Your task to perform on an android device: What's on Reddit today Image 0: 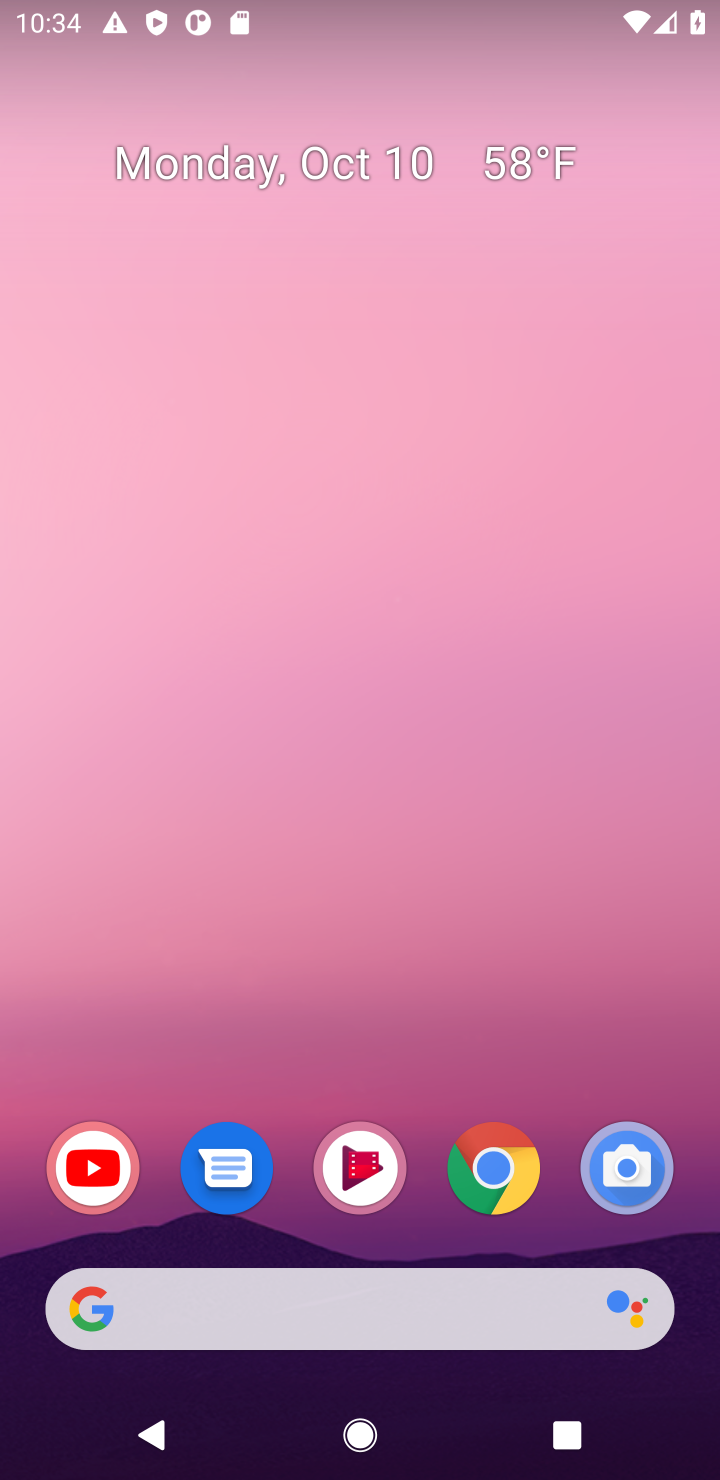
Step 0: click (325, 1314)
Your task to perform on an android device: What's on Reddit today Image 1: 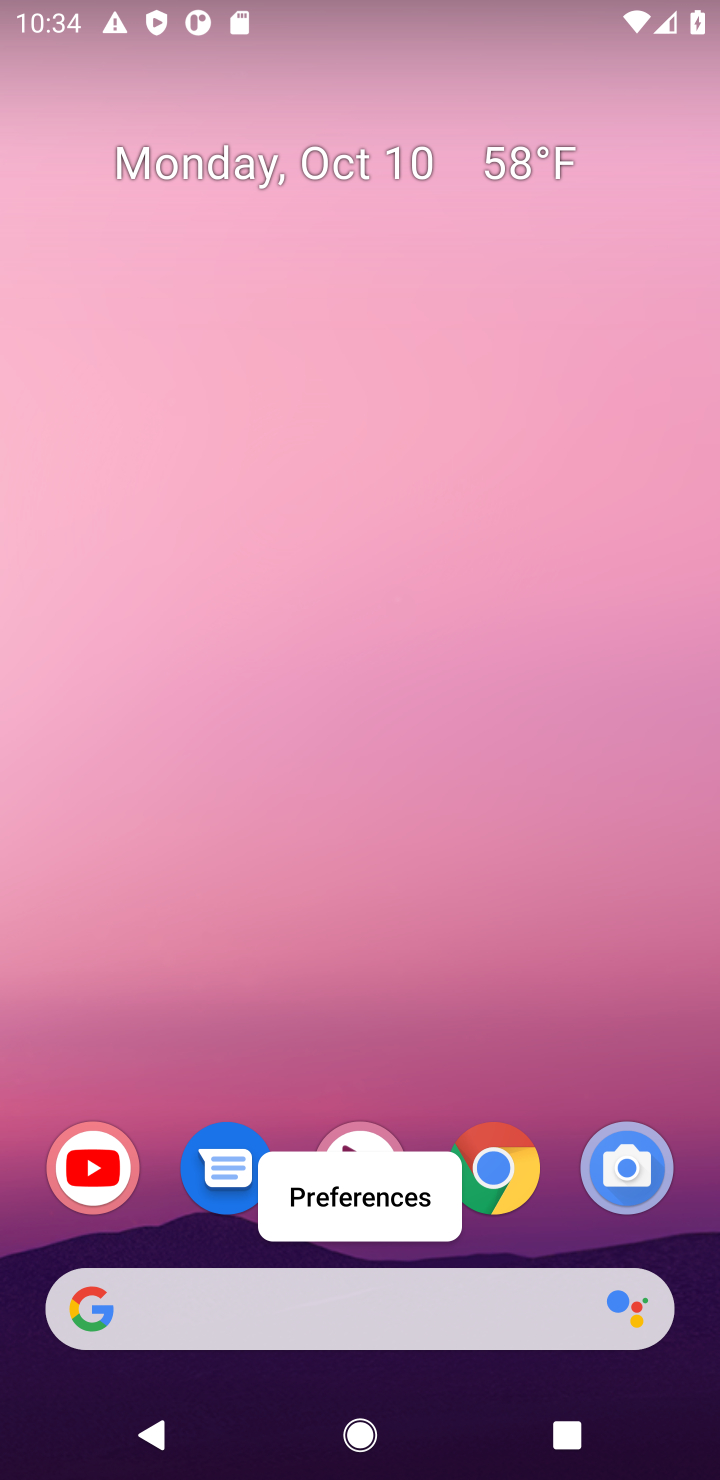
Step 1: click (309, 1285)
Your task to perform on an android device: What's on Reddit today Image 2: 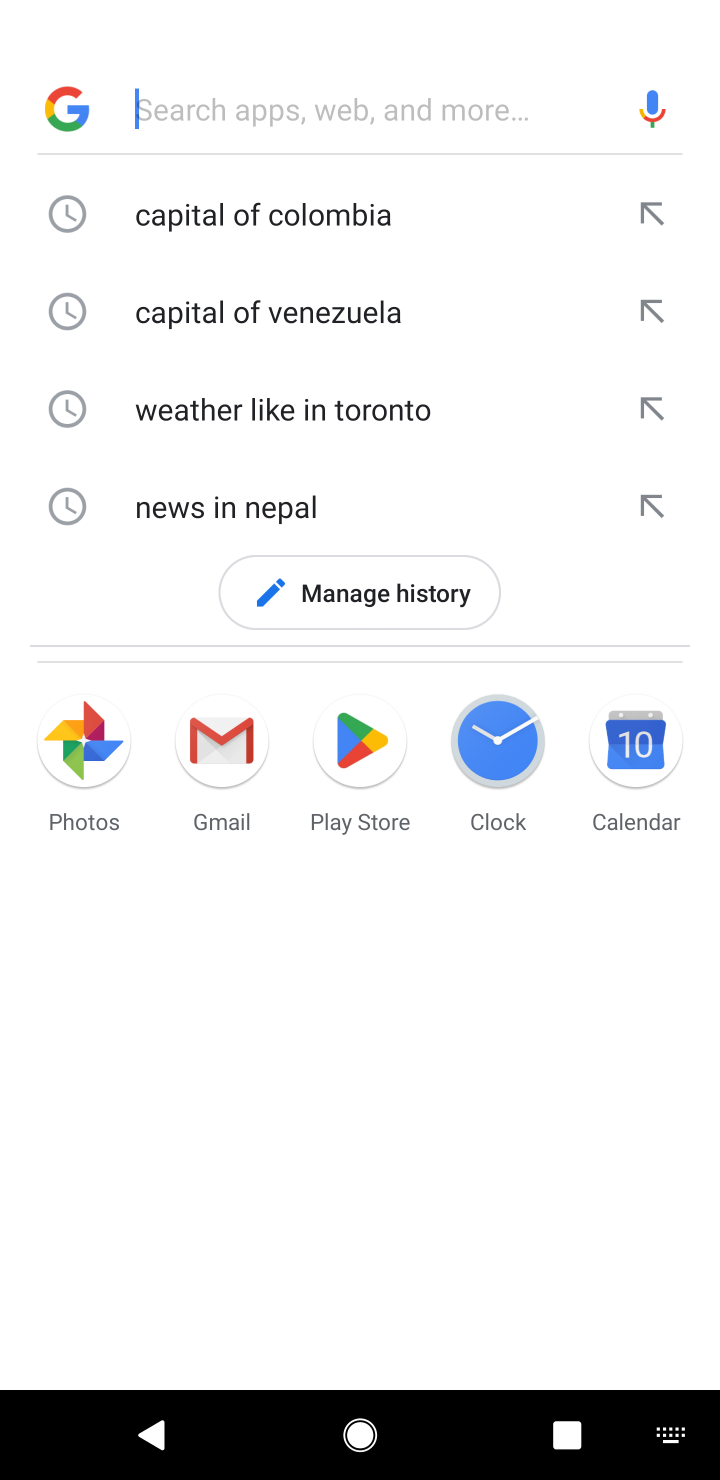
Step 2: type "Reddit"
Your task to perform on an android device: What's on Reddit today Image 3: 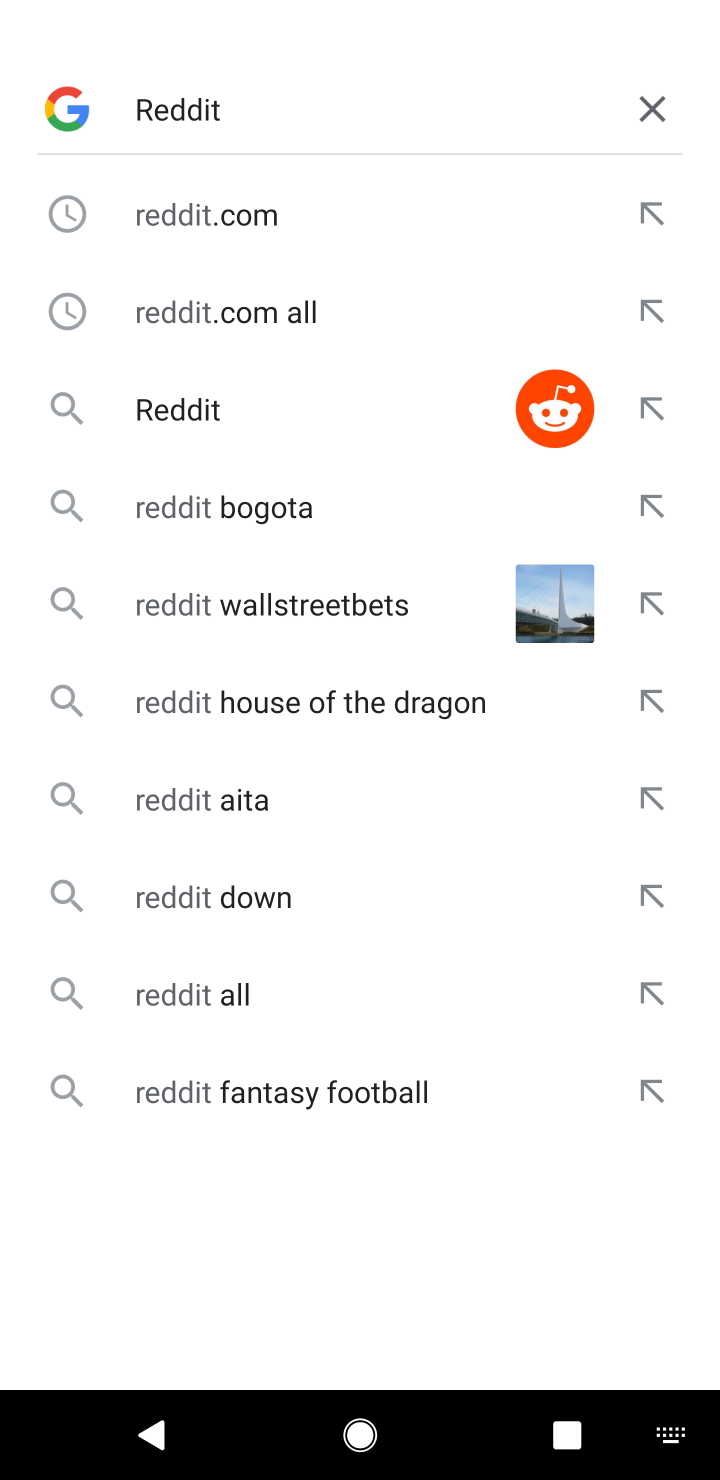
Step 3: click (286, 212)
Your task to perform on an android device: What's on Reddit today Image 4: 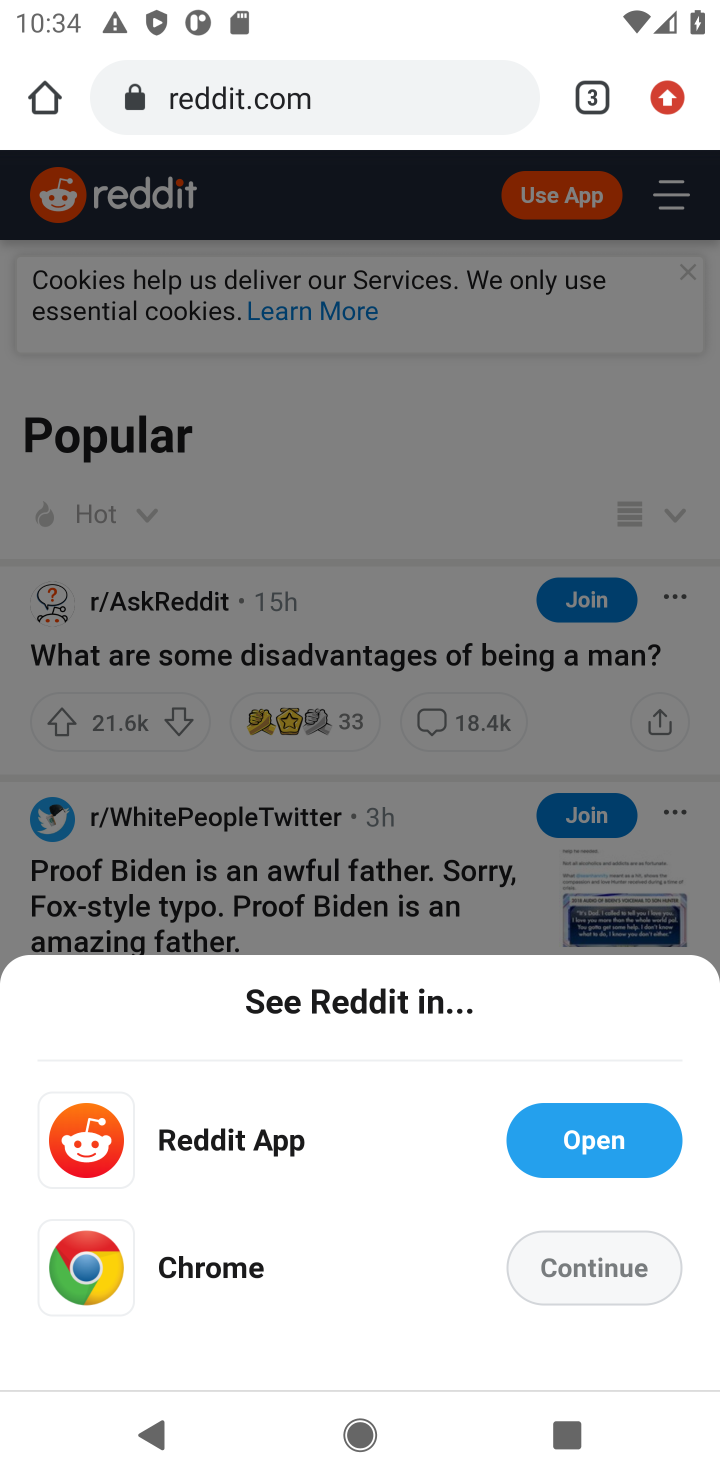
Step 4: click (596, 1247)
Your task to perform on an android device: What's on Reddit today Image 5: 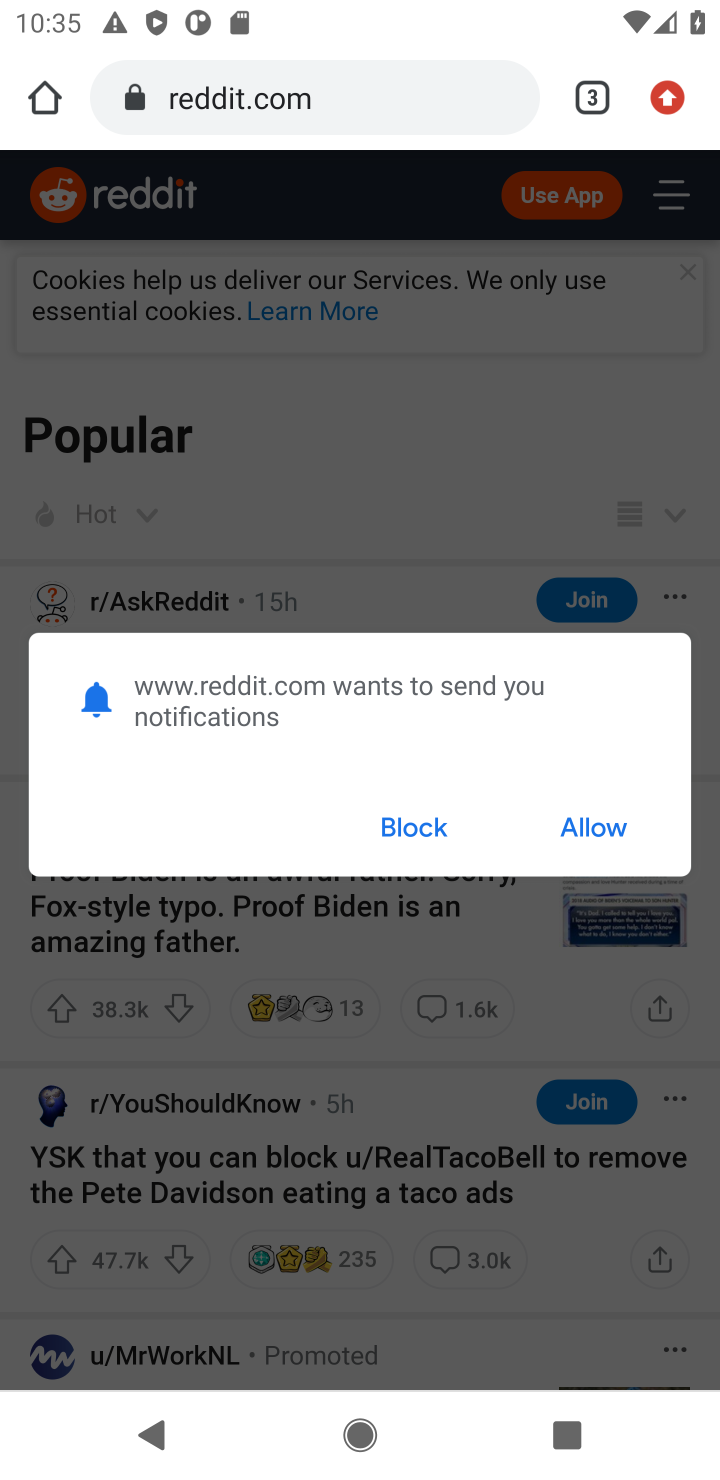
Step 5: click (424, 815)
Your task to perform on an android device: What's on Reddit today Image 6: 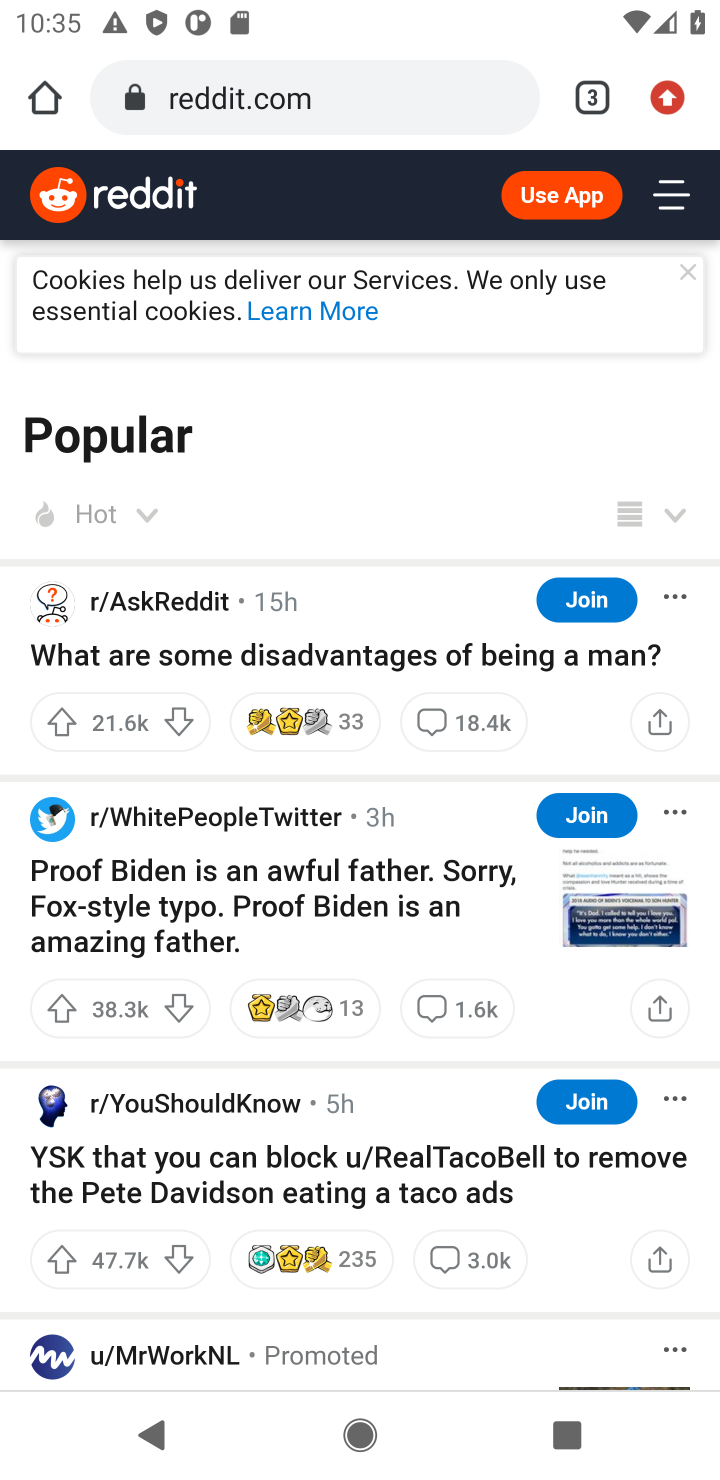
Step 6: task complete